Your task to perform on an android device: open app "Adobe Acrobat Reader" (install if not already installed) and enter user name: "nondescriptly@inbox.com" and password: "negating" Image 0: 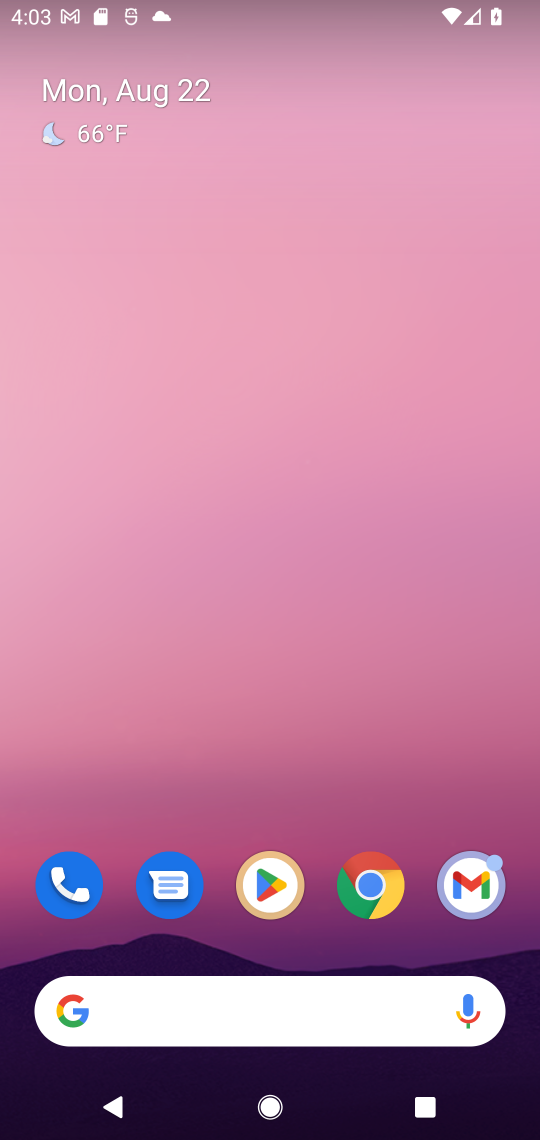
Step 0: press home button
Your task to perform on an android device: open app "Adobe Acrobat Reader" (install if not already installed) and enter user name: "nondescriptly@inbox.com" and password: "negating" Image 1: 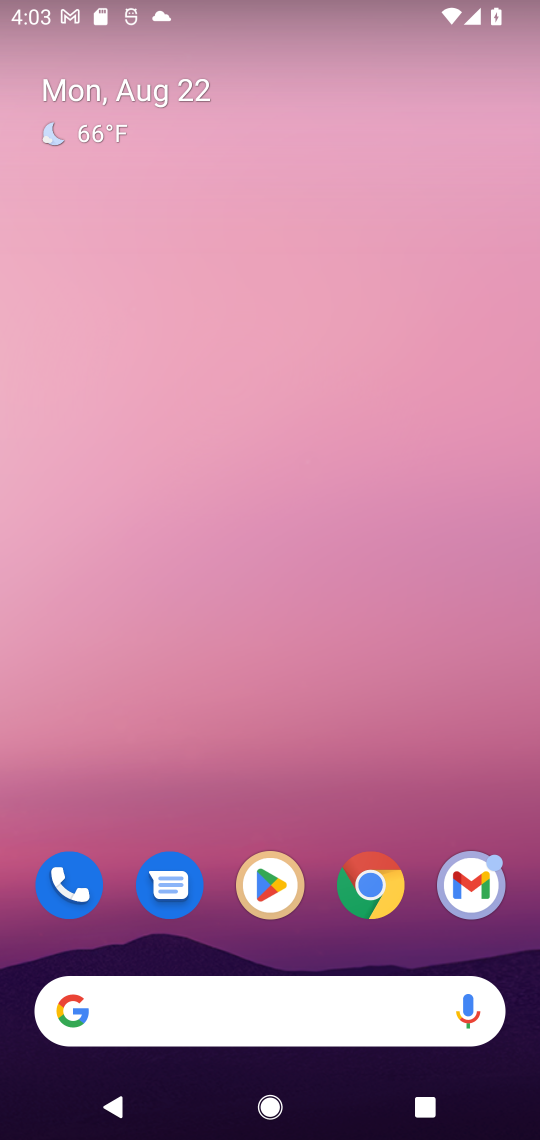
Step 1: click (262, 876)
Your task to perform on an android device: open app "Adobe Acrobat Reader" (install if not already installed) and enter user name: "nondescriptly@inbox.com" and password: "negating" Image 2: 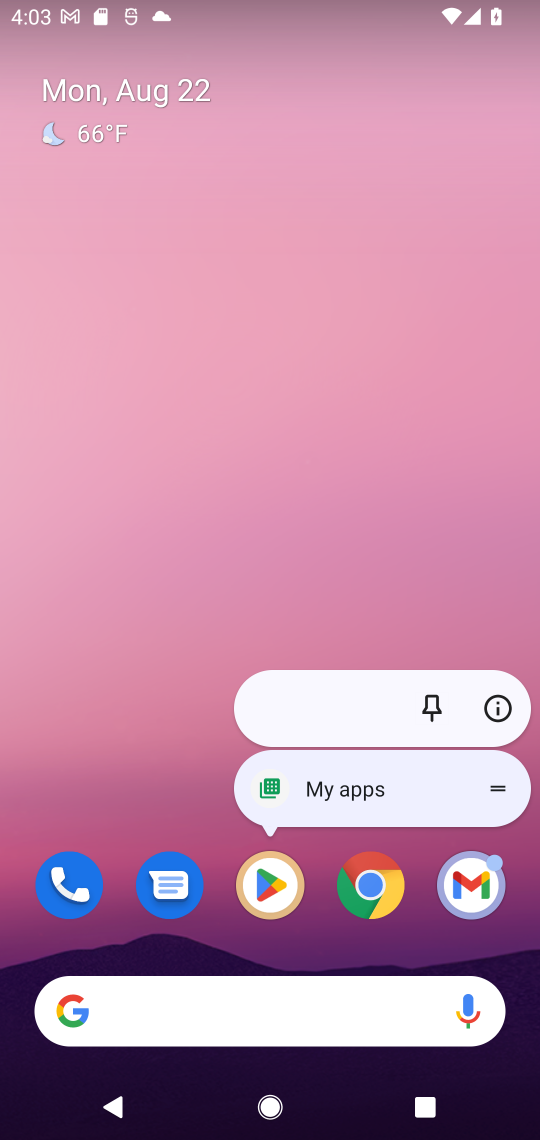
Step 2: click (260, 876)
Your task to perform on an android device: open app "Adobe Acrobat Reader" (install if not already installed) and enter user name: "nondescriptly@inbox.com" and password: "negating" Image 3: 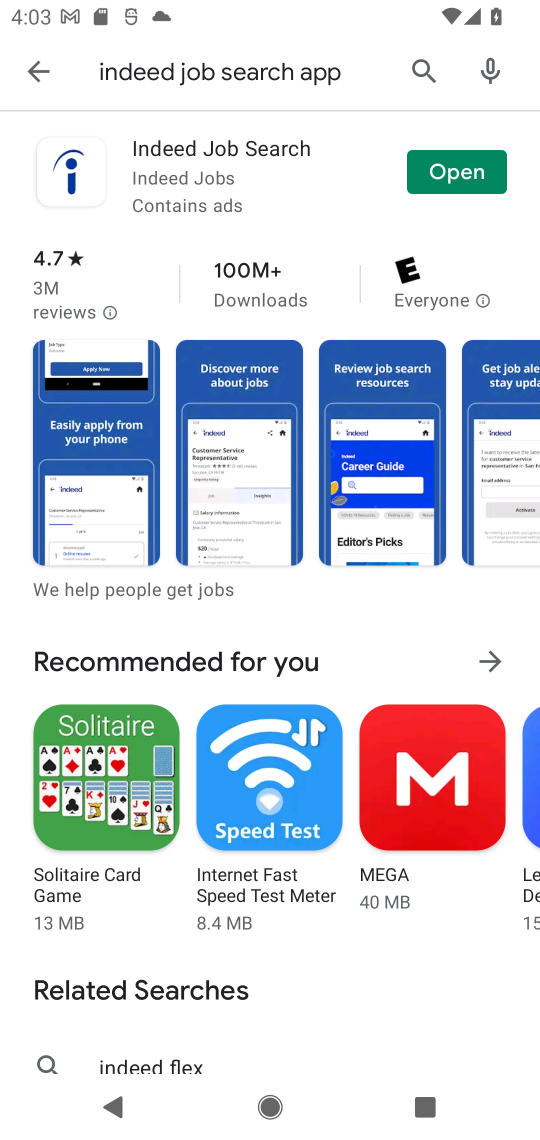
Step 3: click (418, 60)
Your task to perform on an android device: open app "Adobe Acrobat Reader" (install if not already installed) and enter user name: "nondescriptly@inbox.com" and password: "negating" Image 4: 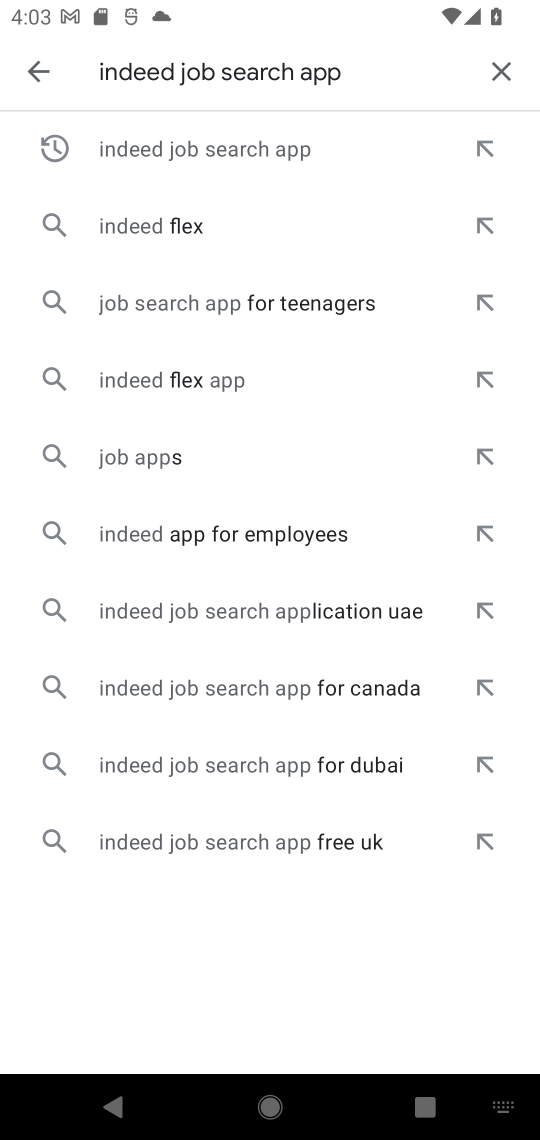
Step 4: click (502, 62)
Your task to perform on an android device: open app "Adobe Acrobat Reader" (install if not already installed) and enter user name: "nondescriptly@inbox.com" and password: "negating" Image 5: 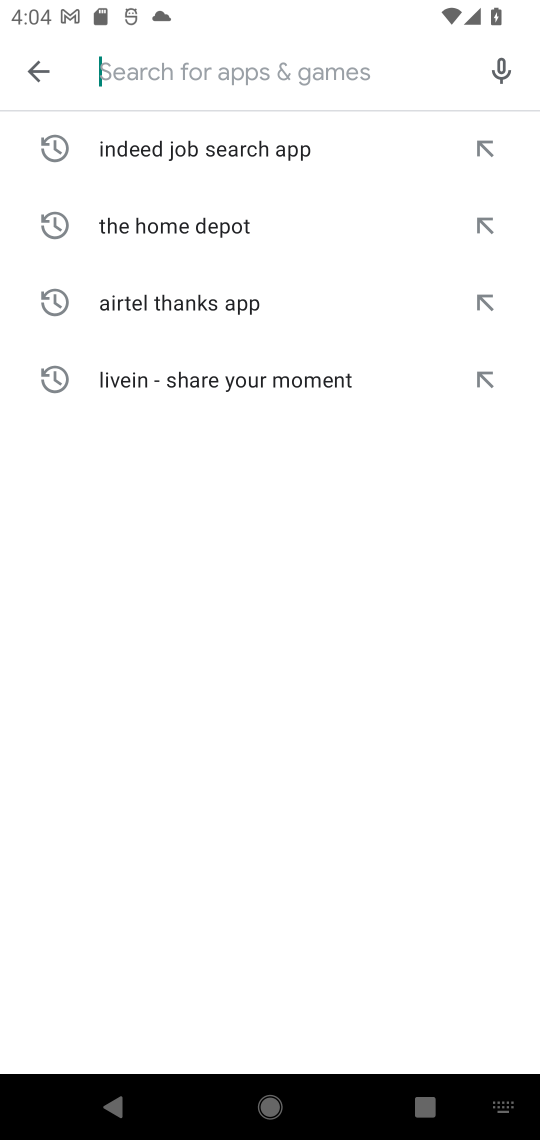
Step 5: type "Adobe Acrobat Reader"
Your task to perform on an android device: open app "Adobe Acrobat Reader" (install if not already installed) and enter user name: "nondescriptly@inbox.com" and password: "negating" Image 6: 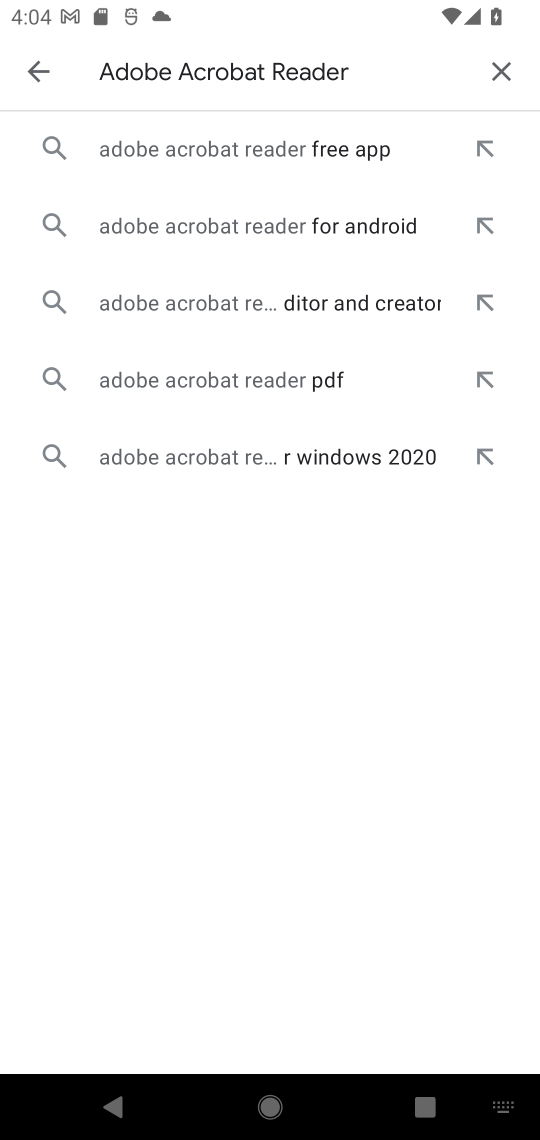
Step 6: click (300, 231)
Your task to perform on an android device: open app "Adobe Acrobat Reader" (install if not already installed) and enter user name: "nondescriptly@inbox.com" and password: "negating" Image 7: 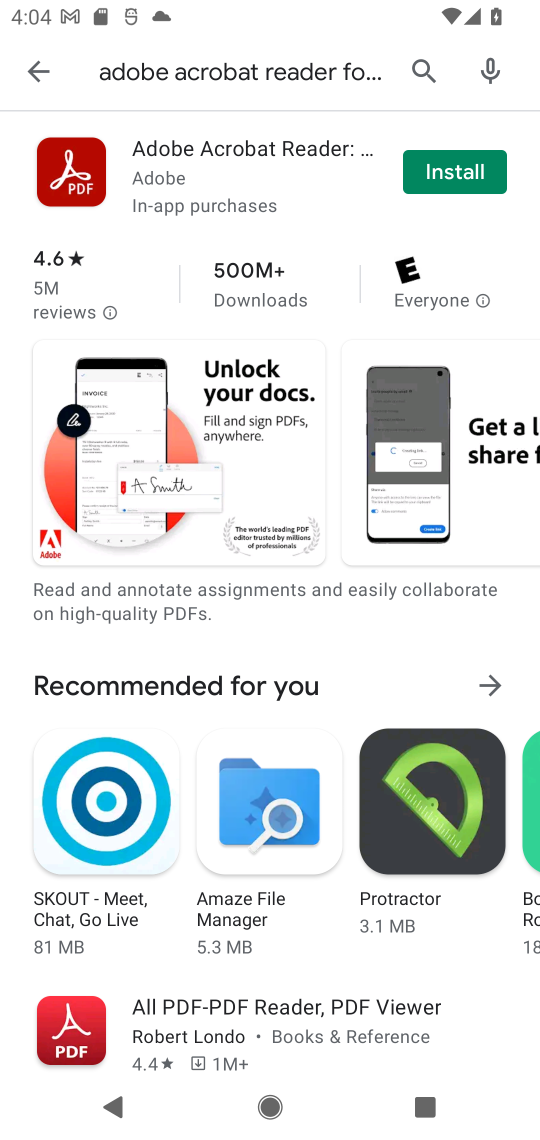
Step 7: click (458, 172)
Your task to perform on an android device: open app "Adobe Acrobat Reader" (install if not already installed) and enter user name: "nondescriptly@inbox.com" and password: "negating" Image 8: 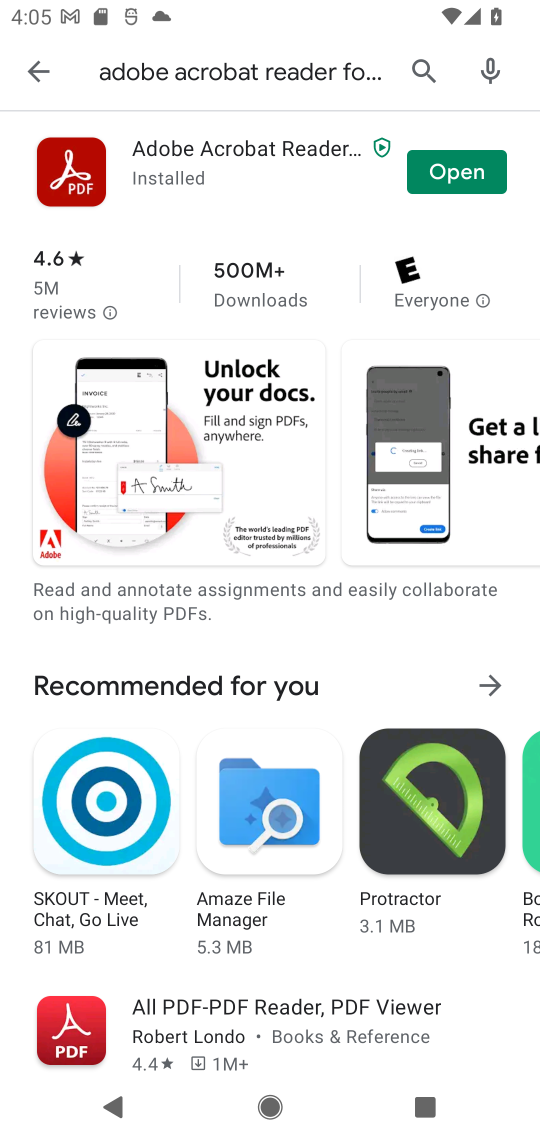
Step 8: click (446, 176)
Your task to perform on an android device: open app "Adobe Acrobat Reader" (install if not already installed) and enter user name: "nondescriptly@inbox.com" and password: "negating" Image 9: 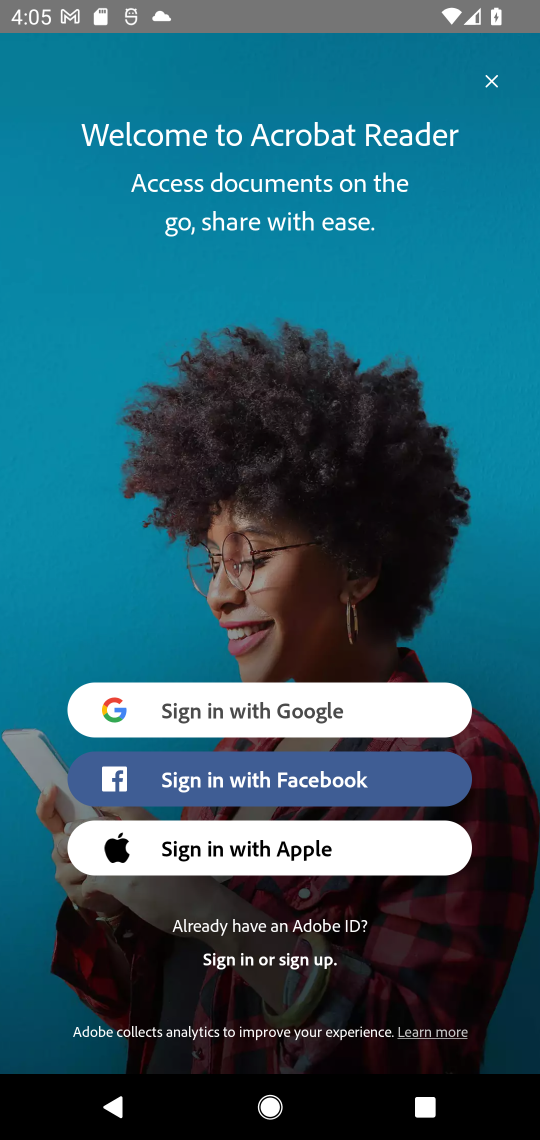
Step 9: click (240, 844)
Your task to perform on an android device: open app "Adobe Acrobat Reader" (install if not already installed) and enter user name: "nondescriptly@inbox.com" and password: "negating" Image 10: 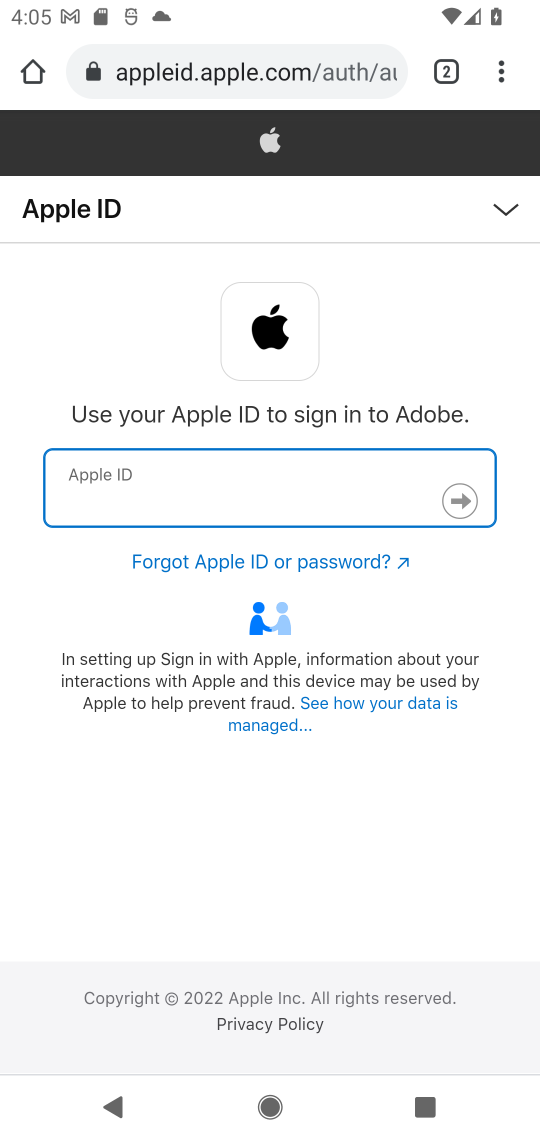
Step 10: task complete